Your task to perform on an android device: Open Maps and search for coffee Image 0: 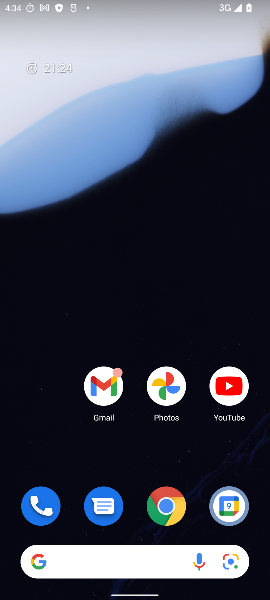
Step 0: drag from (91, 493) to (52, 12)
Your task to perform on an android device: Open Maps and search for coffee Image 1: 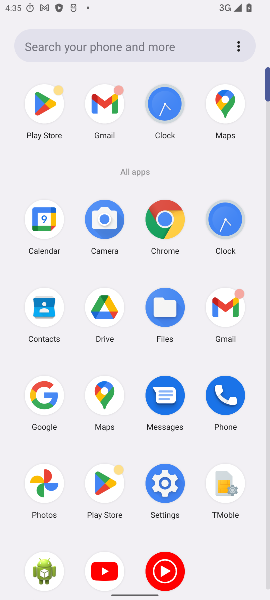
Step 1: click (101, 394)
Your task to perform on an android device: Open Maps and search for coffee Image 2: 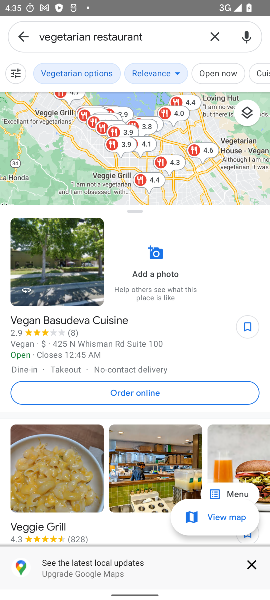
Step 2: click (217, 33)
Your task to perform on an android device: Open Maps and search for coffee Image 3: 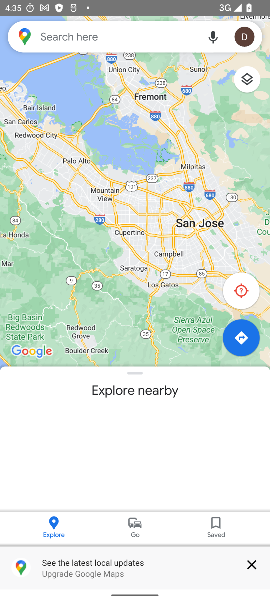
Step 3: click (162, 35)
Your task to perform on an android device: Open Maps and search for coffee Image 4: 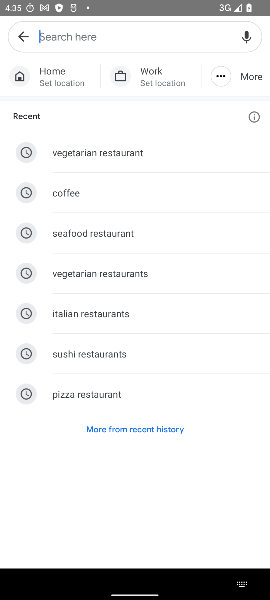
Step 4: click (87, 202)
Your task to perform on an android device: Open Maps and search for coffee Image 5: 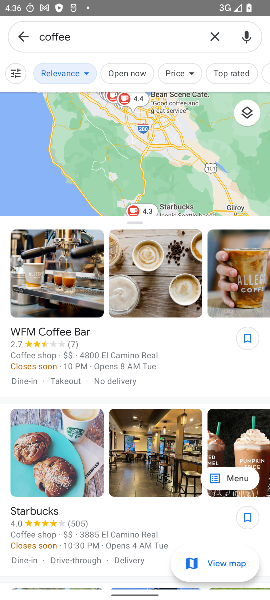
Step 5: task complete